Your task to perform on an android device: toggle data saver in the chrome app Image 0: 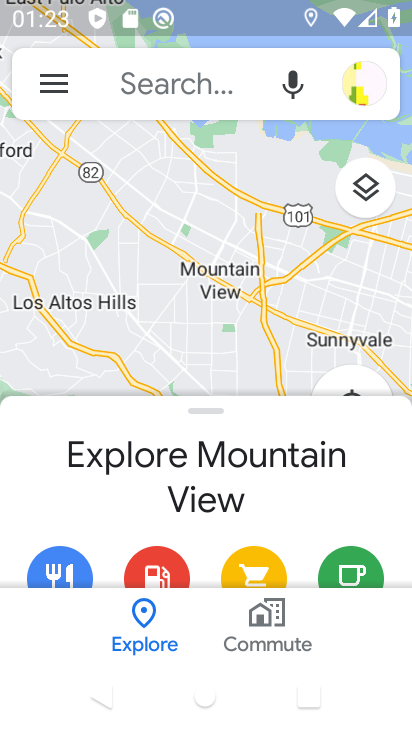
Step 0: press home button
Your task to perform on an android device: toggle data saver in the chrome app Image 1: 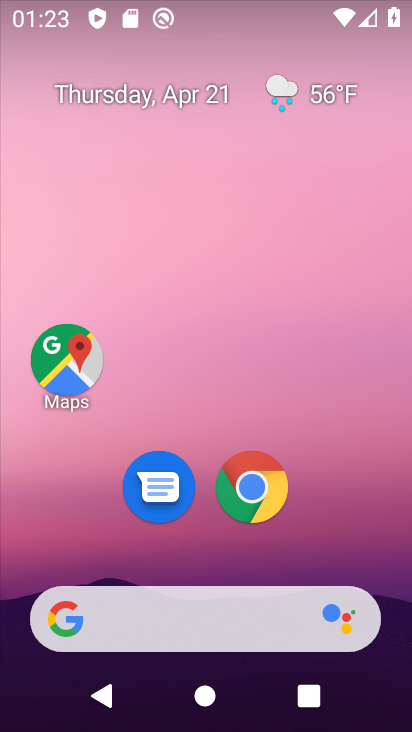
Step 1: click (255, 499)
Your task to perform on an android device: toggle data saver in the chrome app Image 2: 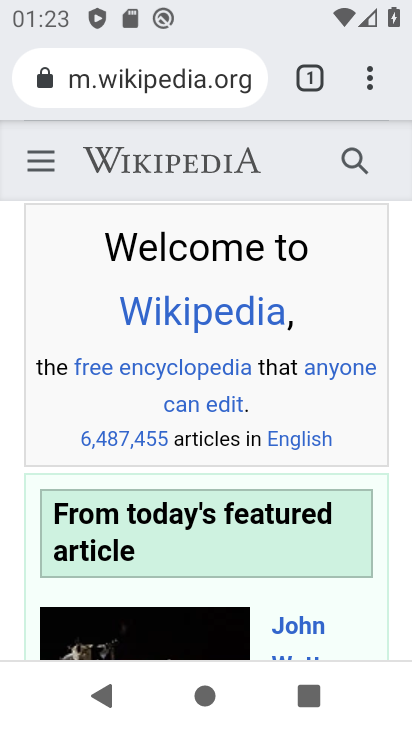
Step 2: click (369, 70)
Your task to perform on an android device: toggle data saver in the chrome app Image 3: 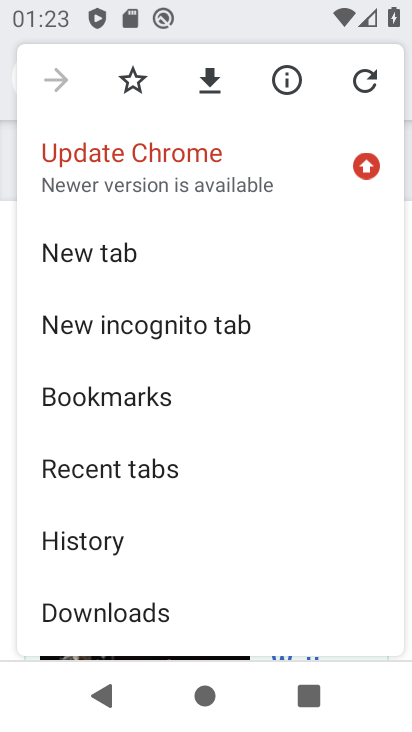
Step 3: drag from (287, 466) to (296, 318)
Your task to perform on an android device: toggle data saver in the chrome app Image 4: 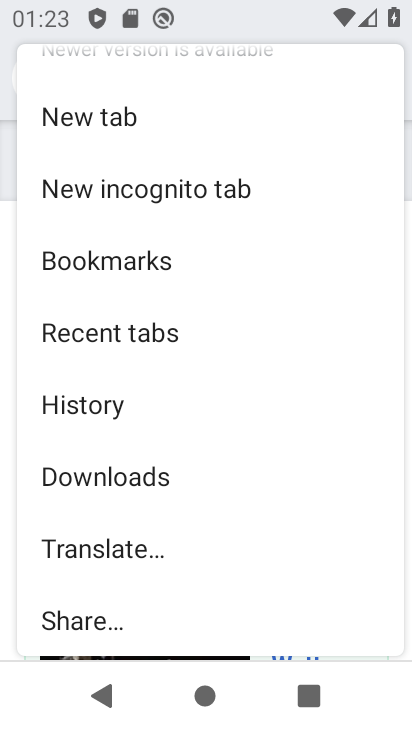
Step 4: drag from (180, 488) to (176, 339)
Your task to perform on an android device: toggle data saver in the chrome app Image 5: 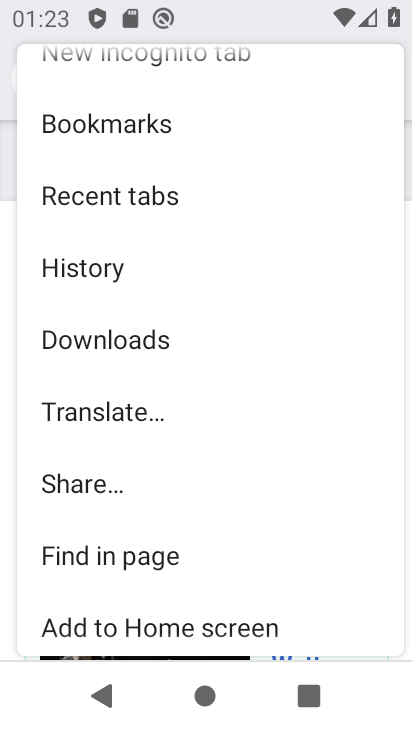
Step 5: drag from (174, 522) to (203, 357)
Your task to perform on an android device: toggle data saver in the chrome app Image 6: 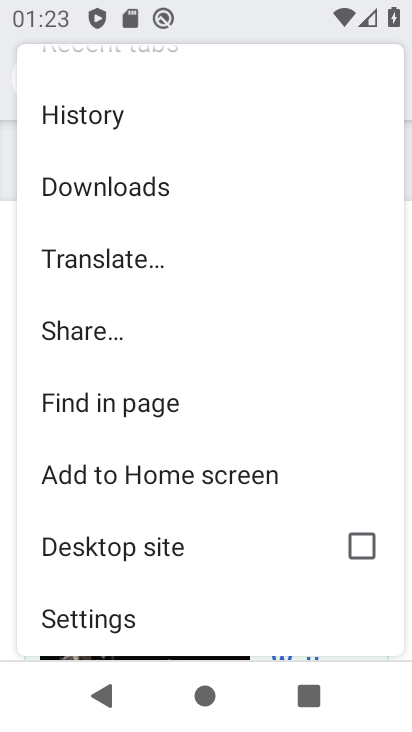
Step 6: click (119, 614)
Your task to perform on an android device: toggle data saver in the chrome app Image 7: 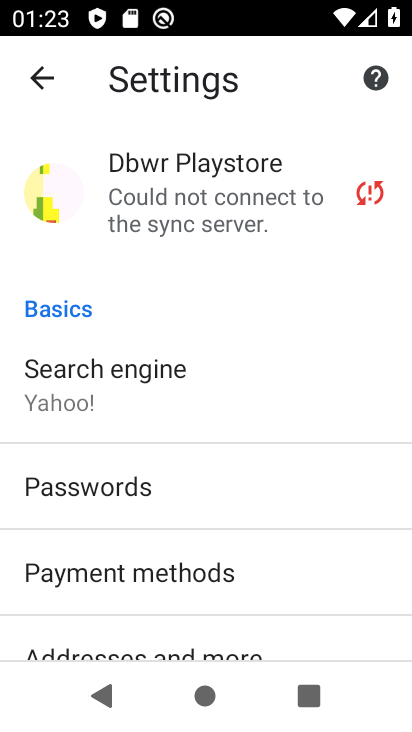
Step 7: drag from (123, 564) to (130, 424)
Your task to perform on an android device: toggle data saver in the chrome app Image 8: 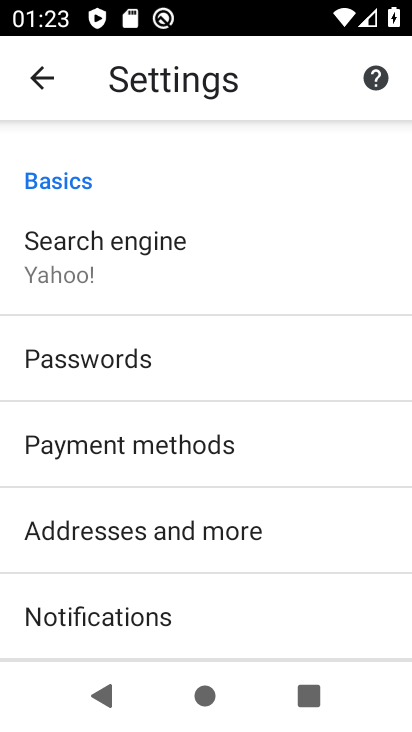
Step 8: drag from (169, 551) to (186, 419)
Your task to perform on an android device: toggle data saver in the chrome app Image 9: 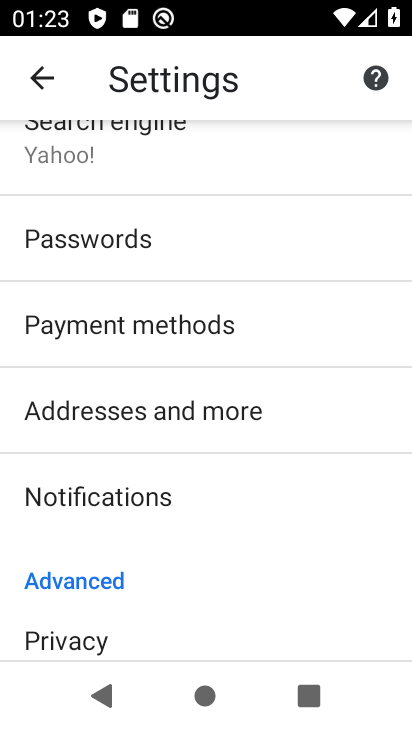
Step 9: drag from (192, 536) to (205, 431)
Your task to perform on an android device: toggle data saver in the chrome app Image 10: 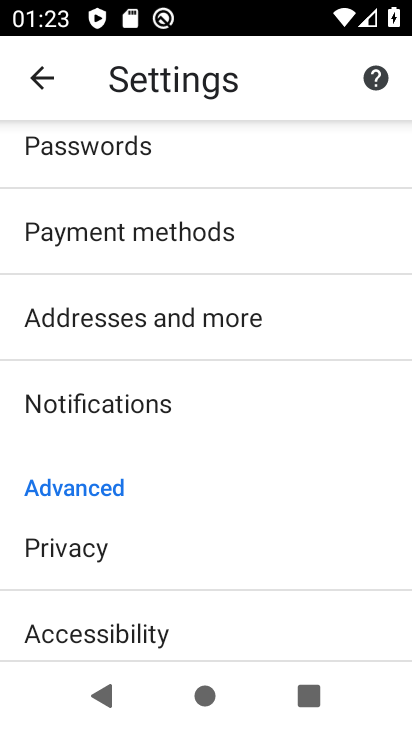
Step 10: drag from (245, 516) to (230, 415)
Your task to perform on an android device: toggle data saver in the chrome app Image 11: 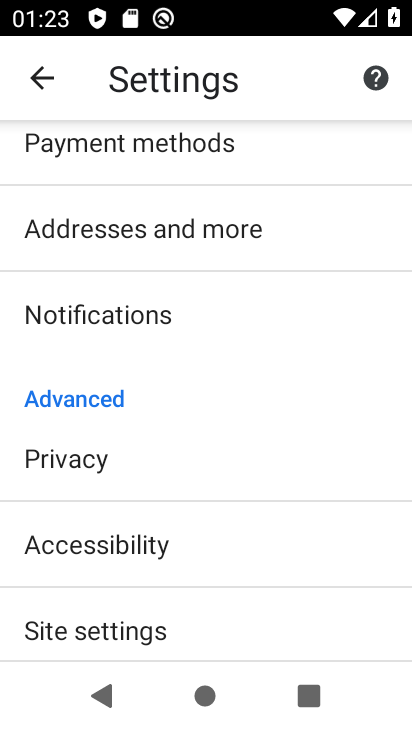
Step 11: drag from (231, 511) to (219, 395)
Your task to perform on an android device: toggle data saver in the chrome app Image 12: 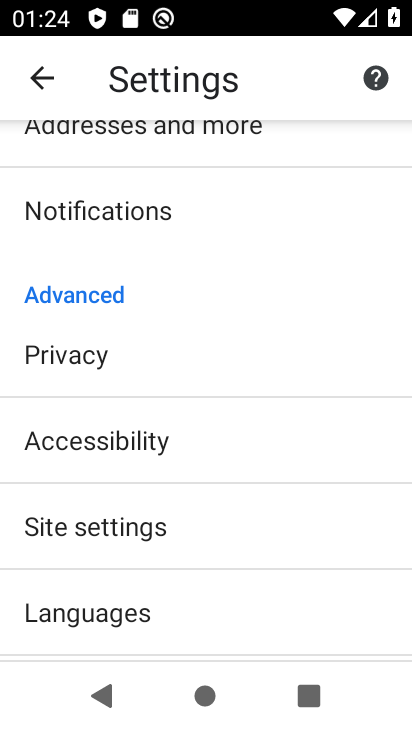
Step 12: drag from (243, 491) to (249, 392)
Your task to perform on an android device: toggle data saver in the chrome app Image 13: 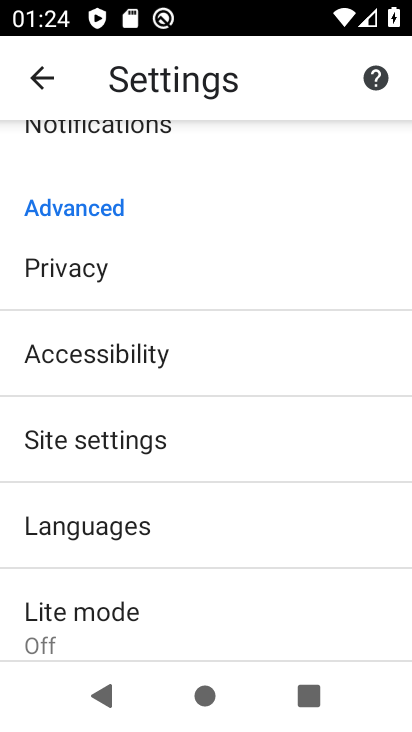
Step 13: drag from (211, 494) to (225, 372)
Your task to perform on an android device: toggle data saver in the chrome app Image 14: 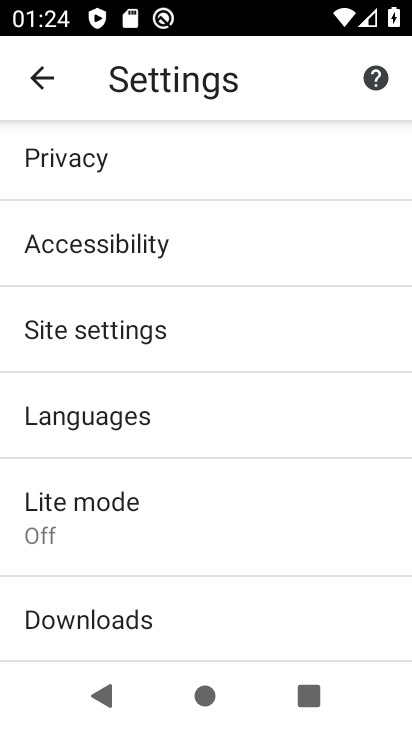
Step 14: click (195, 545)
Your task to perform on an android device: toggle data saver in the chrome app Image 15: 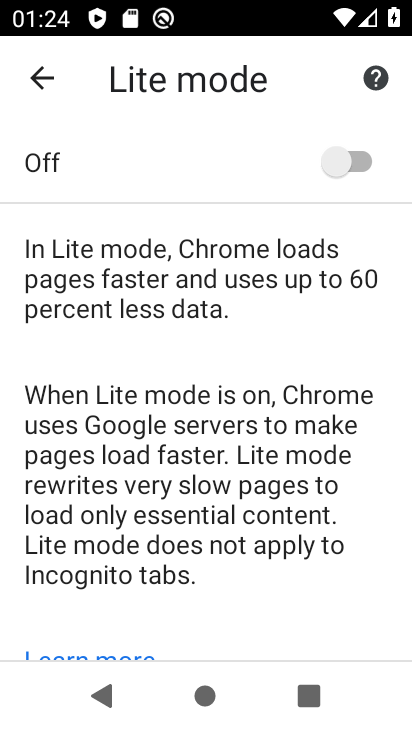
Step 15: click (347, 161)
Your task to perform on an android device: toggle data saver in the chrome app Image 16: 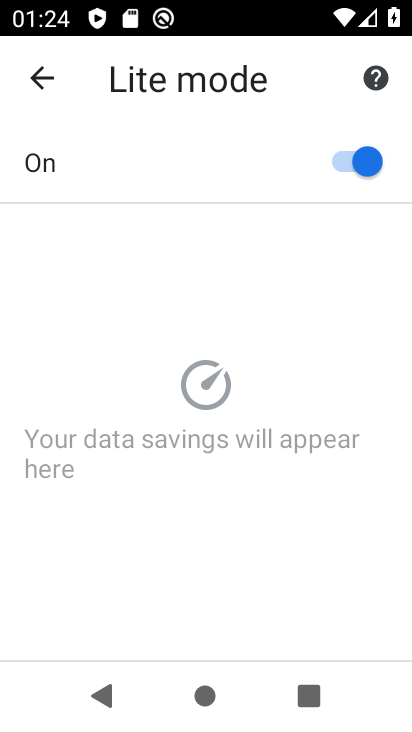
Step 16: task complete